Your task to perform on an android device: open app "Contacts" (install if not already installed) Image 0: 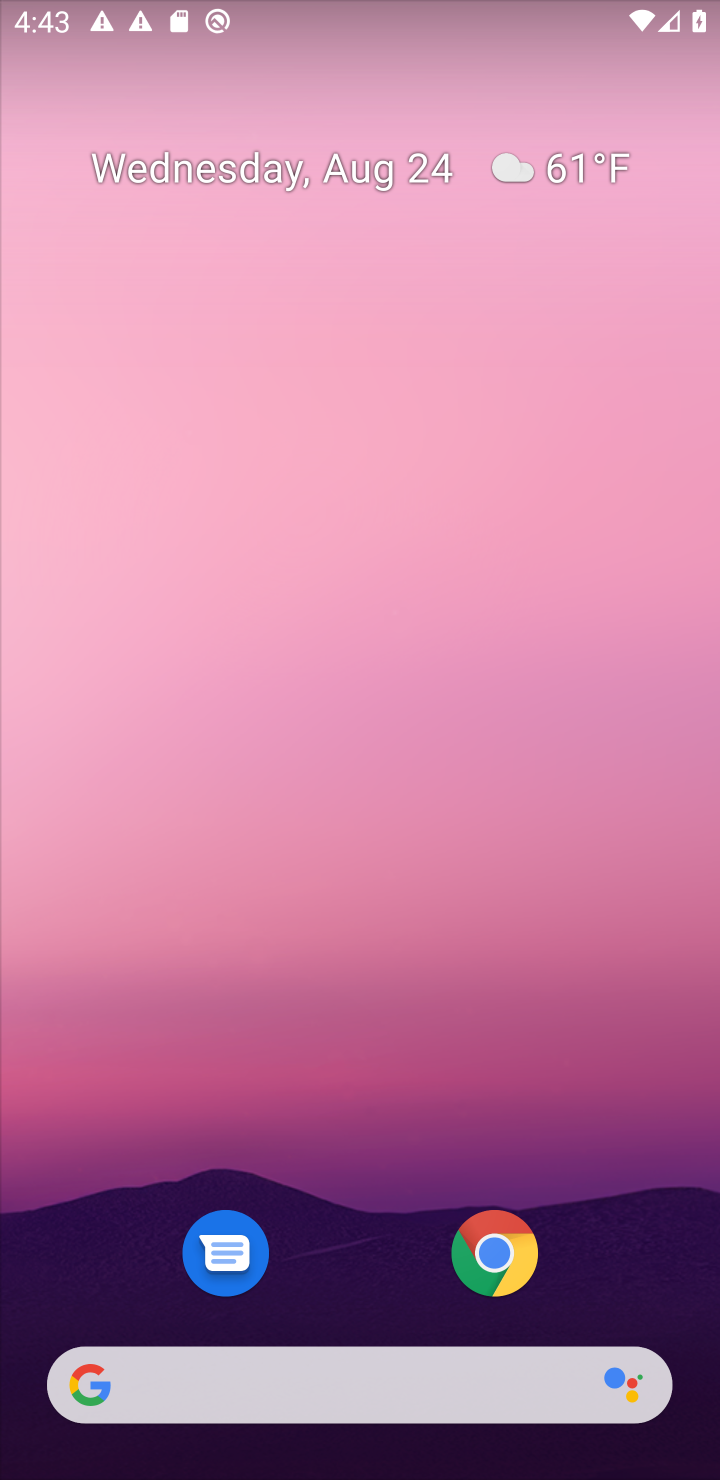
Step 0: drag from (441, 572) to (487, 184)
Your task to perform on an android device: open app "Contacts" (install if not already installed) Image 1: 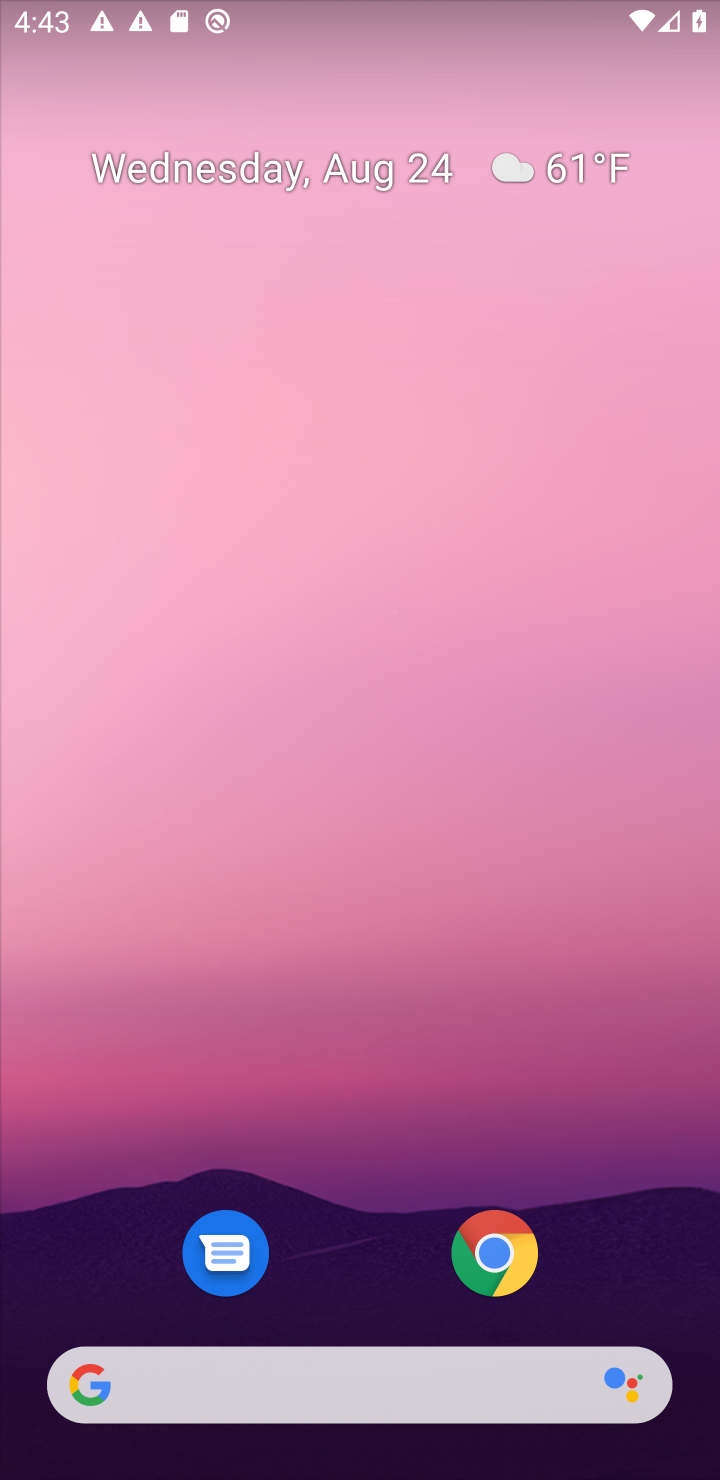
Step 1: drag from (348, 923) to (348, 166)
Your task to perform on an android device: open app "Contacts" (install if not already installed) Image 2: 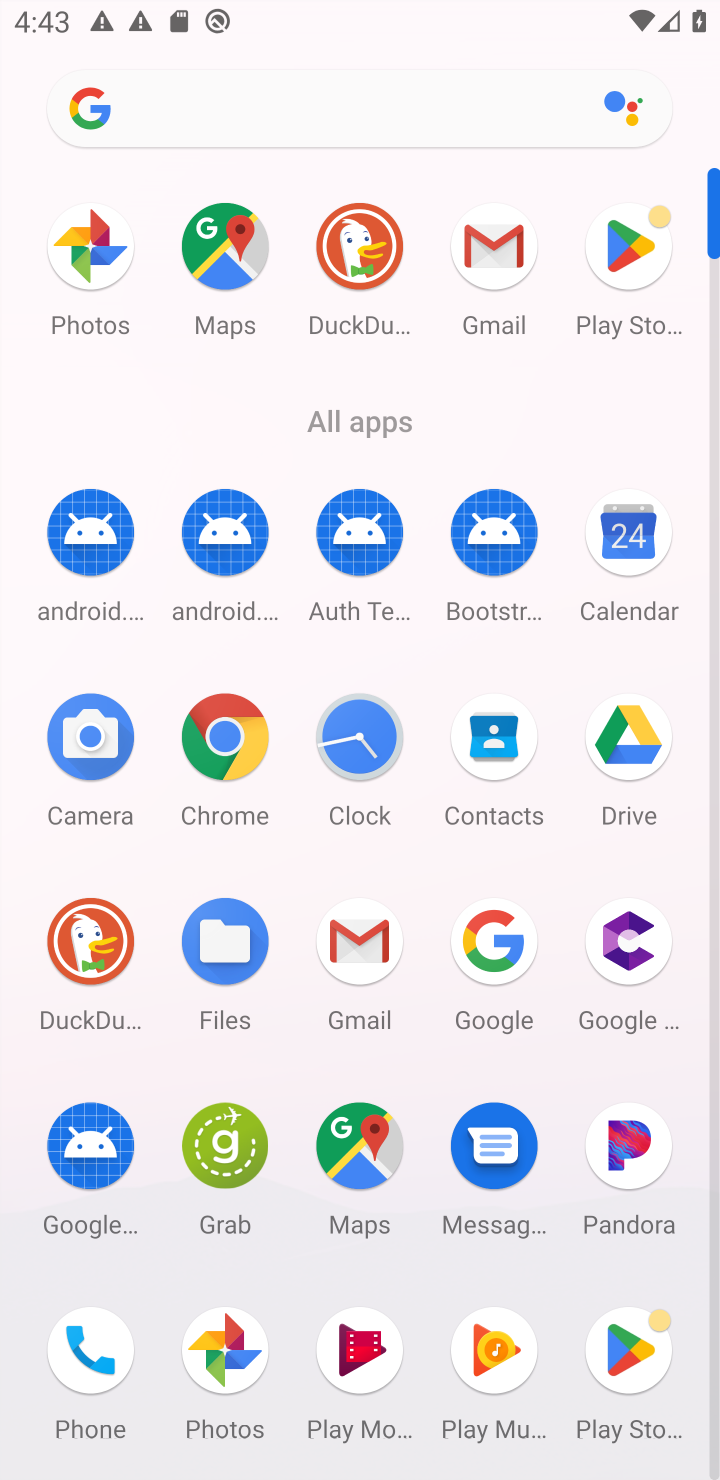
Step 2: click (501, 751)
Your task to perform on an android device: open app "Contacts" (install if not already installed) Image 3: 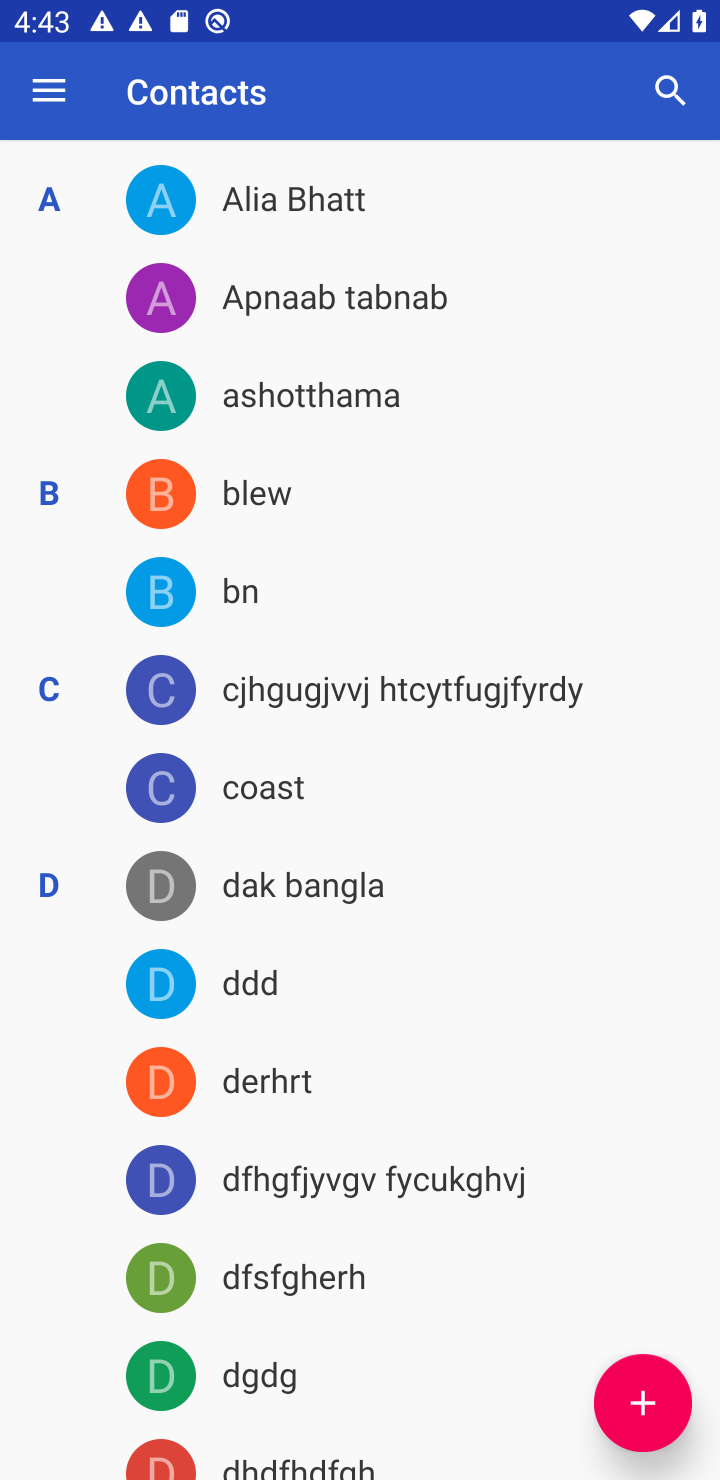
Step 3: task complete